Your task to perform on an android device: Show me productivity apps on the Play Store Image 0: 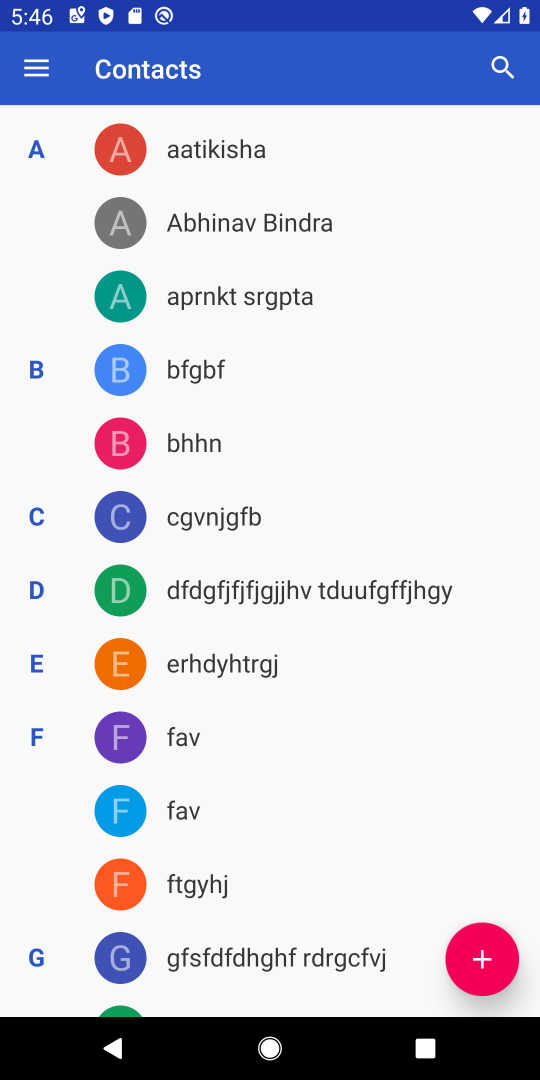
Step 0: press home button
Your task to perform on an android device: Show me productivity apps on the Play Store Image 1: 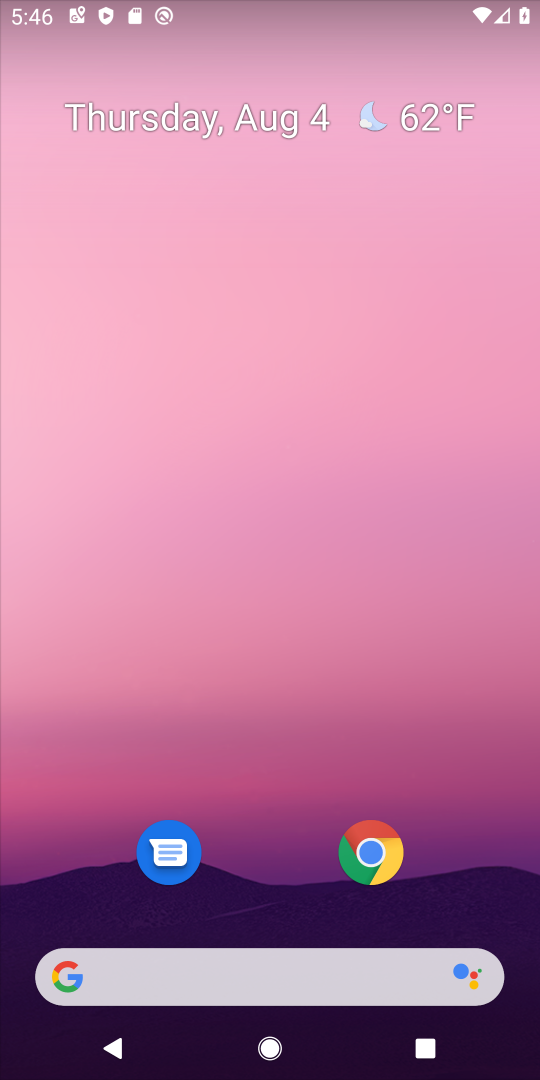
Step 1: drag from (304, 915) to (297, 390)
Your task to perform on an android device: Show me productivity apps on the Play Store Image 2: 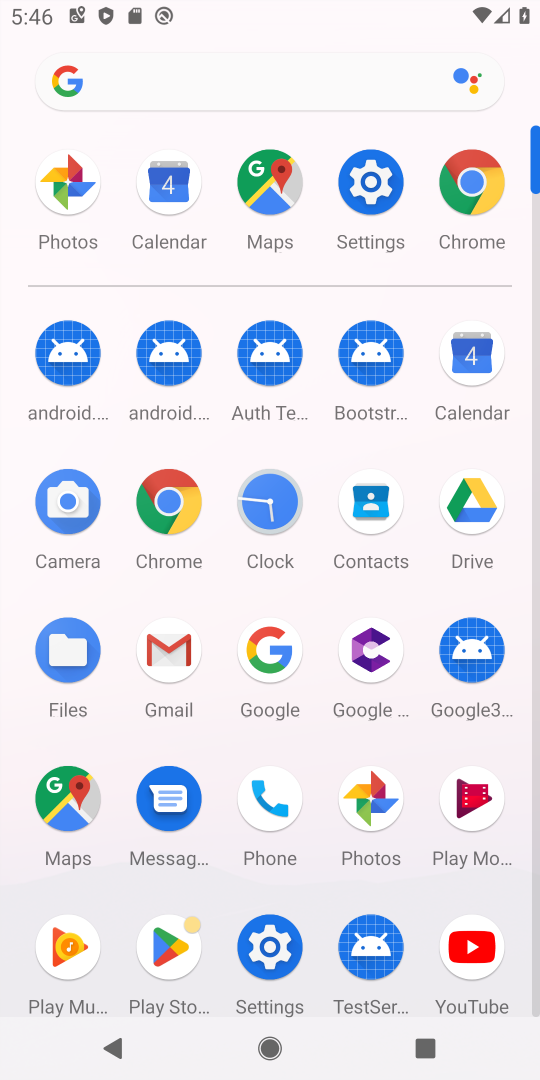
Step 2: click (183, 942)
Your task to perform on an android device: Show me productivity apps on the Play Store Image 3: 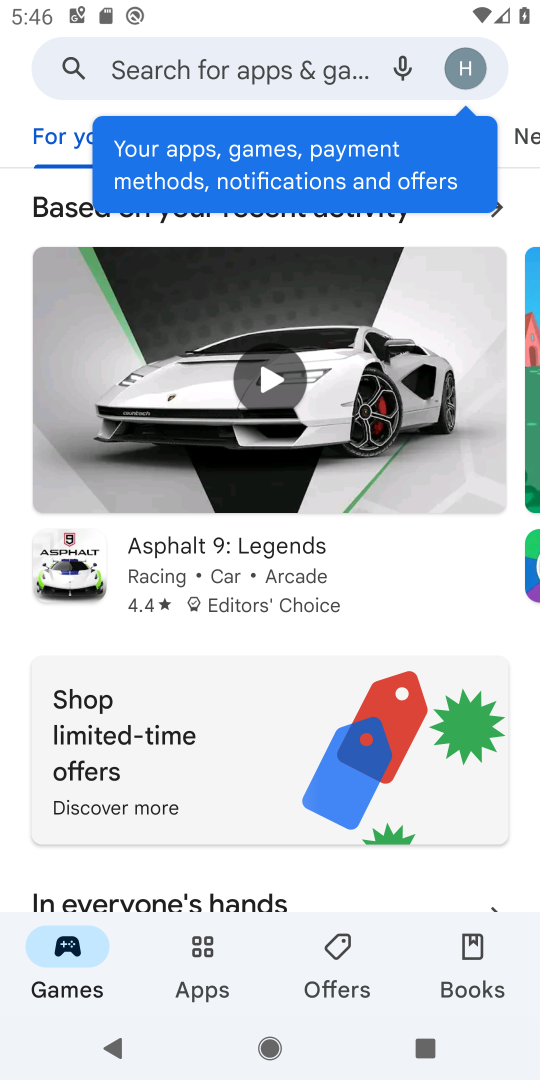
Step 3: click (196, 974)
Your task to perform on an android device: Show me productivity apps on the Play Store Image 4: 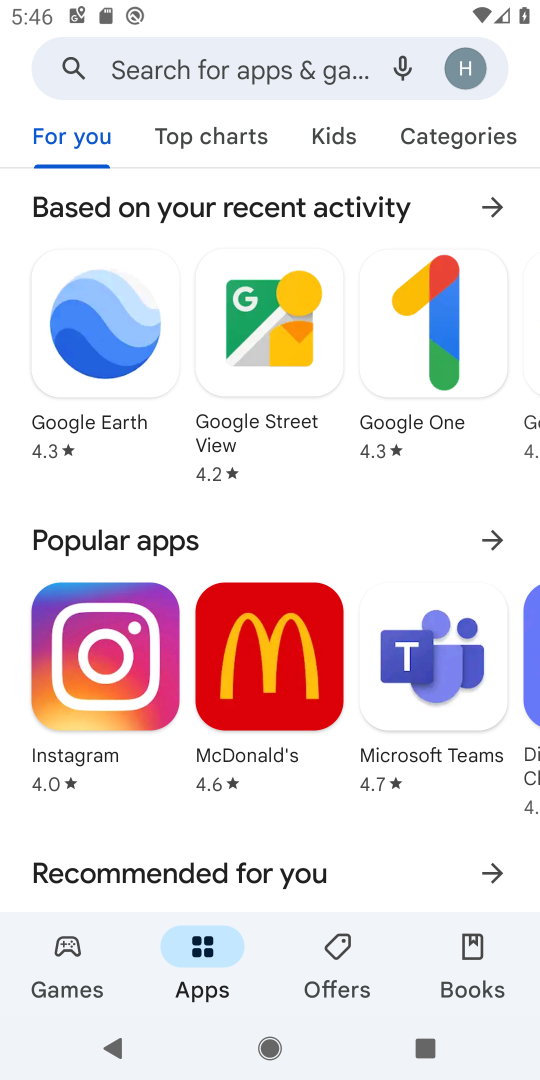
Step 4: click (468, 130)
Your task to perform on an android device: Show me productivity apps on the Play Store Image 5: 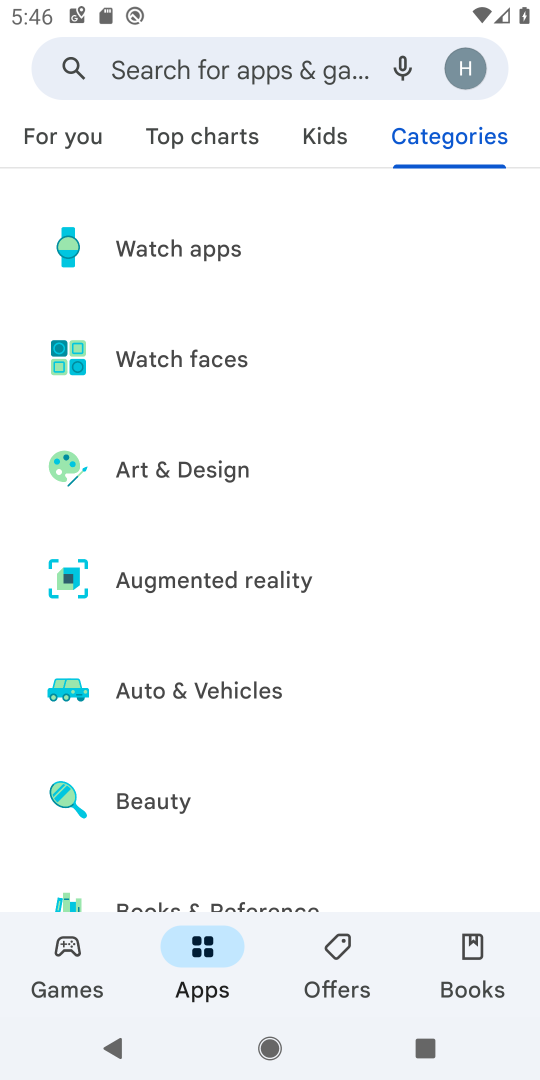
Step 5: drag from (235, 839) to (256, 249)
Your task to perform on an android device: Show me productivity apps on the Play Store Image 6: 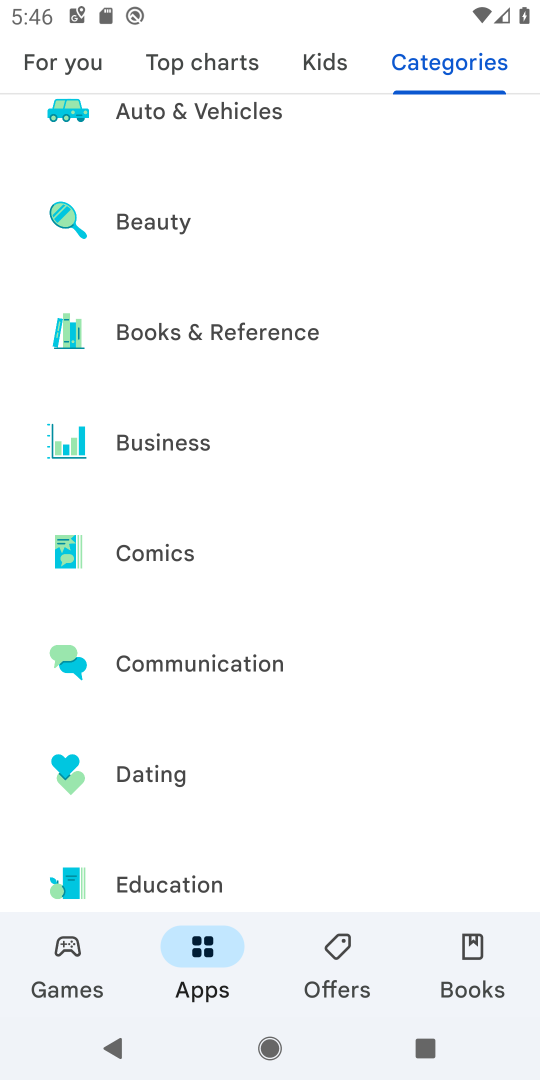
Step 6: drag from (194, 839) to (251, 445)
Your task to perform on an android device: Show me productivity apps on the Play Store Image 7: 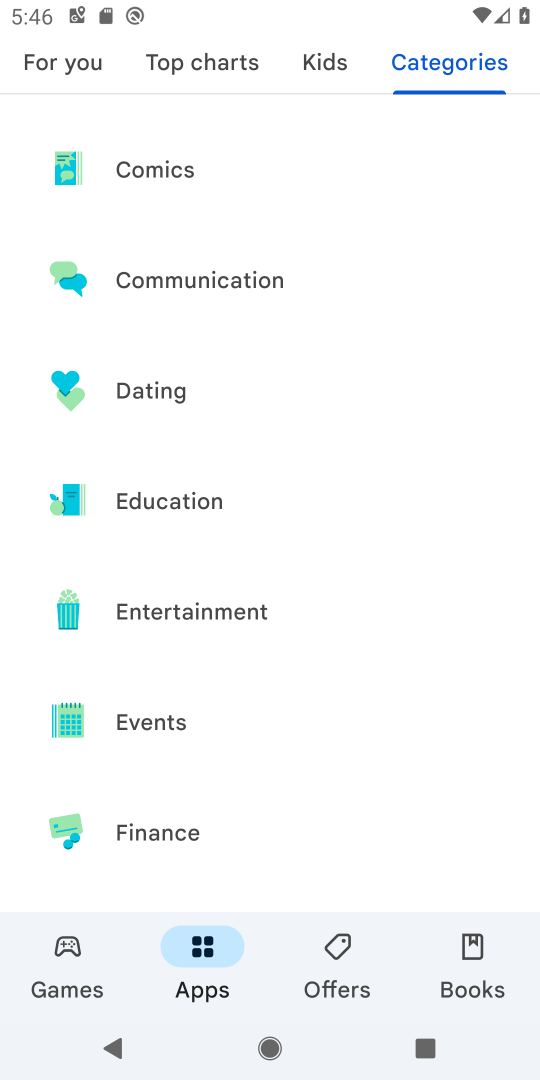
Step 7: drag from (150, 698) to (161, 317)
Your task to perform on an android device: Show me productivity apps on the Play Store Image 8: 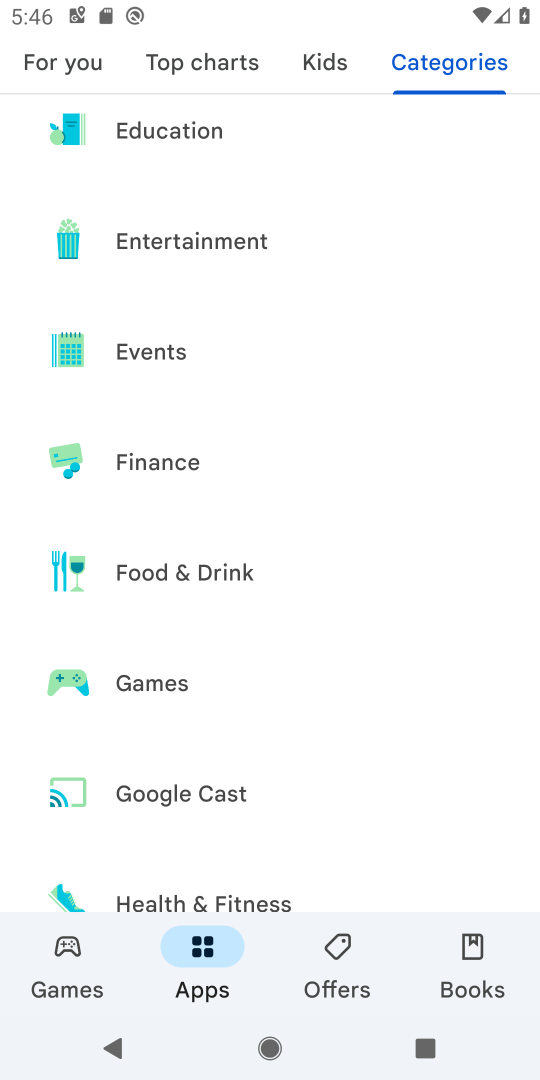
Step 8: drag from (206, 803) to (220, 312)
Your task to perform on an android device: Show me productivity apps on the Play Store Image 9: 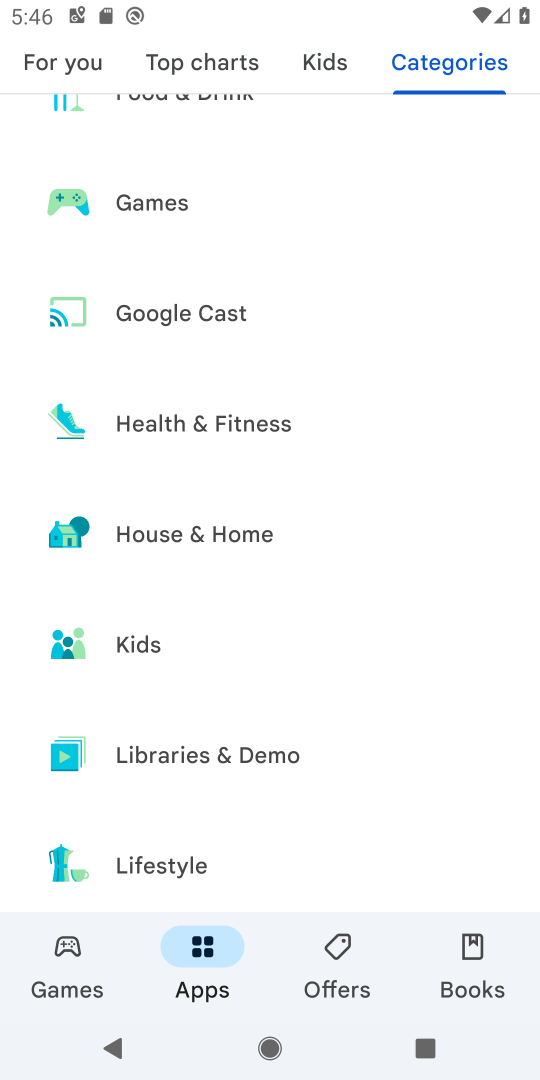
Step 9: drag from (214, 809) to (233, 240)
Your task to perform on an android device: Show me productivity apps on the Play Store Image 10: 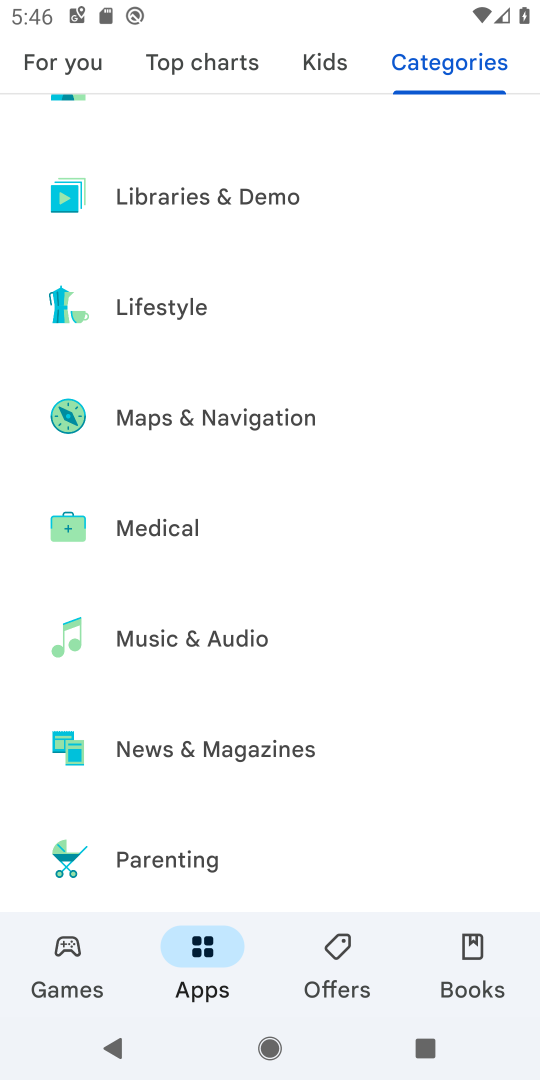
Step 10: drag from (198, 824) to (229, 501)
Your task to perform on an android device: Show me productivity apps on the Play Store Image 11: 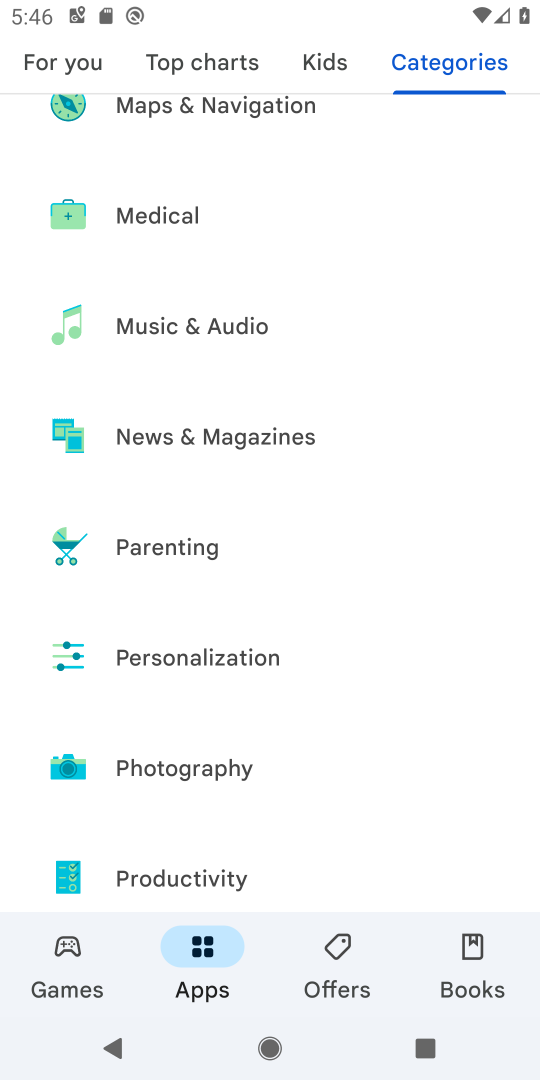
Step 11: click (165, 872)
Your task to perform on an android device: Show me productivity apps on the Play Store Image 12: 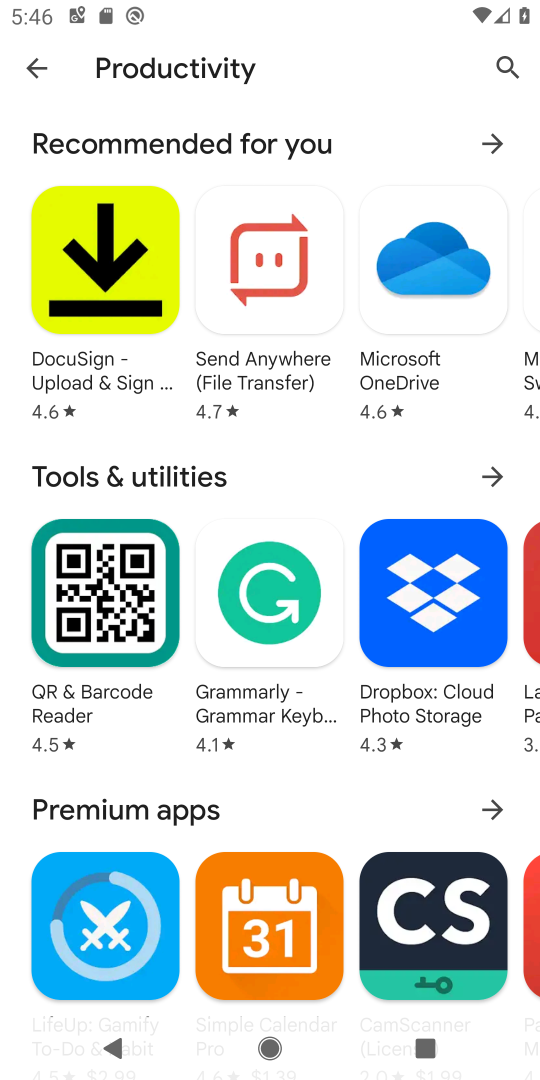
Step 12: task complete